Your task to perform on an android device: turn on notifications settings in the gmail app Image 0: 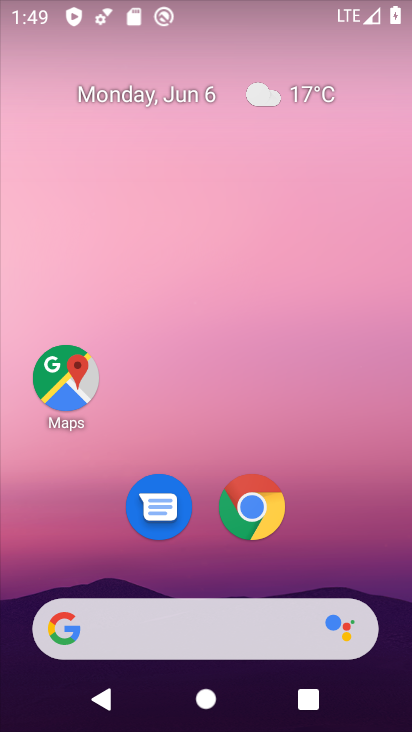
Step 0: drag from (385, 594) to (268, 180)
Your task to perform on an android device: turn on notifications settings in the gmail app Image 1: 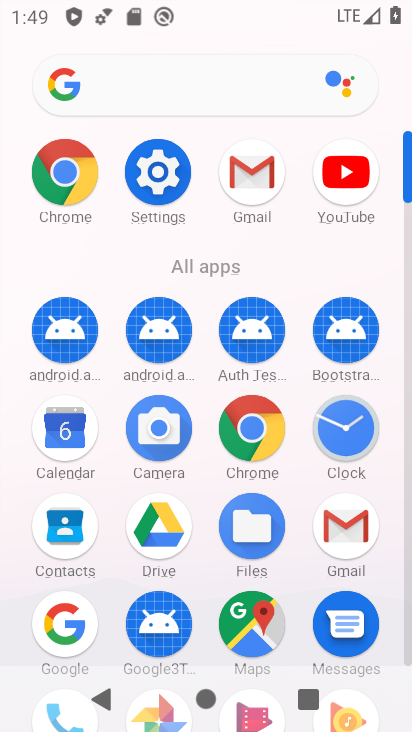
Step 1: click (253, 178)
Your task to perform on an android device: turn on notifications settings in the gmail app Image 2: 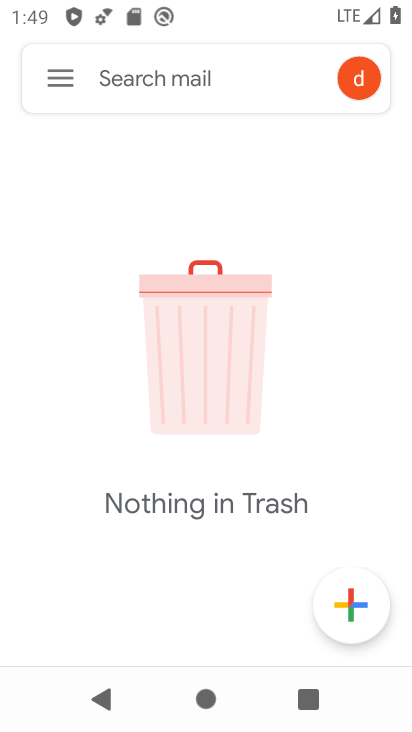
Step 2: click (60, 104)
Your task to perform on an android device: turn on notifications settings in the gmail app Image 3: 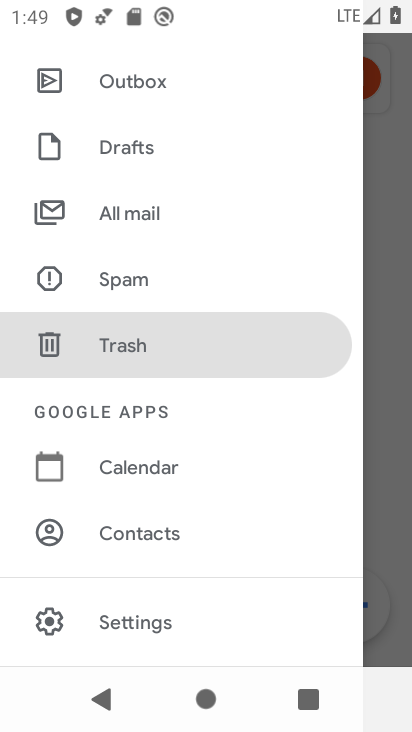
Step 3: click (183, 631)
Your task to perform on an android device: turn on notifications settings in the gmail app Image 4: 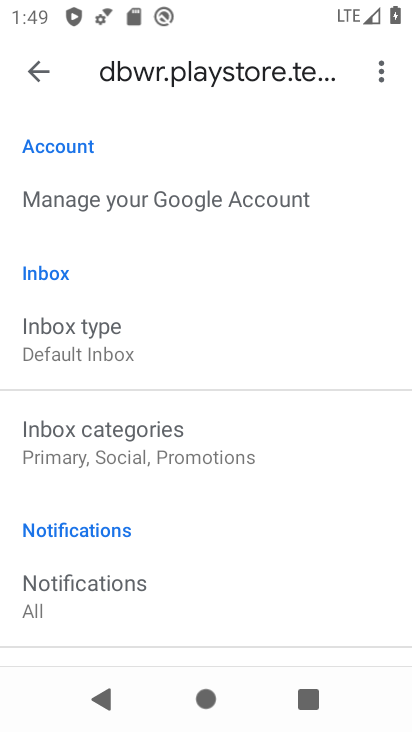
Step 4: drag from (207, 624) to (119, 165)
Your task to perform on an android device: turn on notifications settings in the gmail app Image 5: 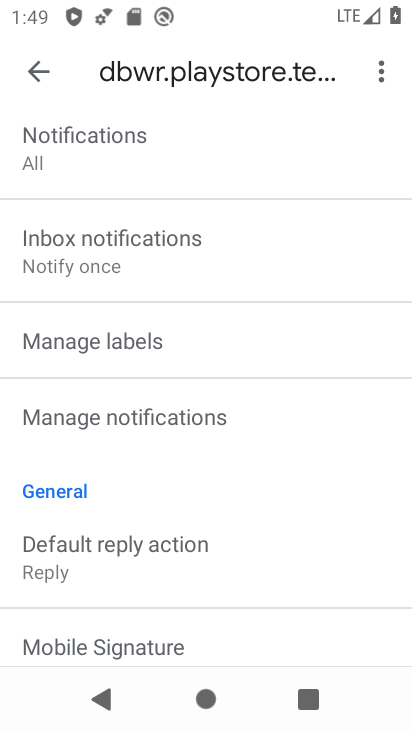
Step 5: click (189, 410)
Your task to perform on an android device: turn on notifications settings in the gmail app Image 6: 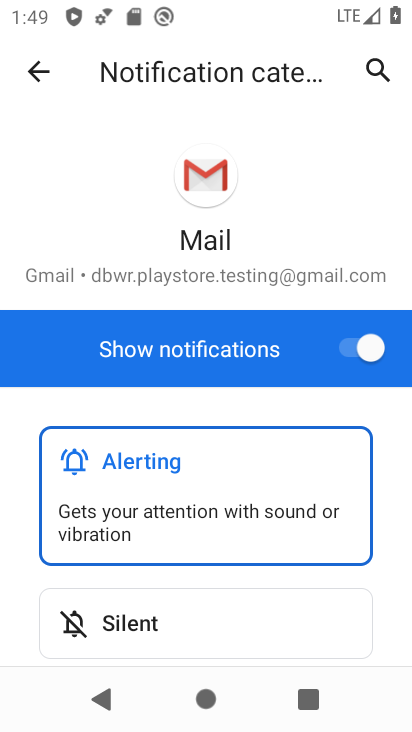
Step 6: drag from (239, 528) to (194, 277)
Your task to perform on an android device: turn on notifications settings in the gmail app Image 7: 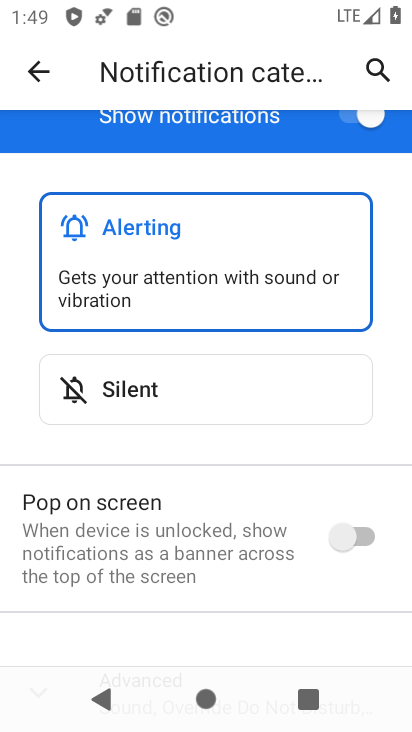
Step 7: click (361, 532)
Your task to perform on an android device: turn on notifications settings in the gmail app Image 8: 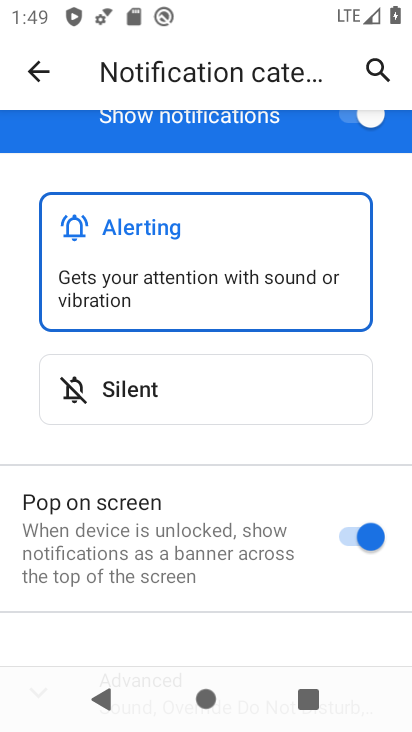
Step 8: task complete